Your task to perform on an android device: Open accessibility settings Image 0: 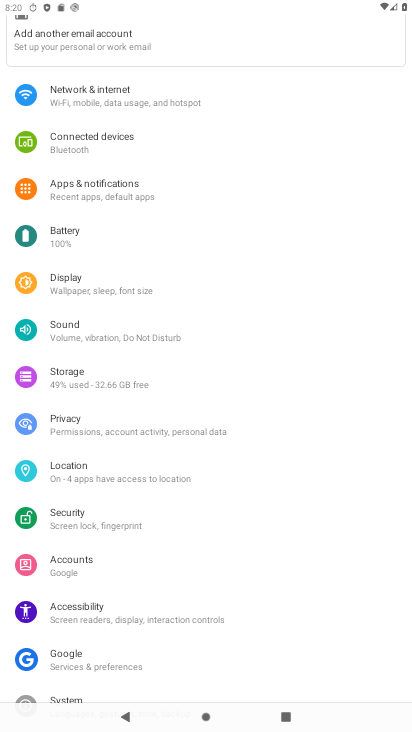
Step 0: drag from (58, 654) to (183, 223)
Your task to perform on an android device: Open accessibility settings Image 1: 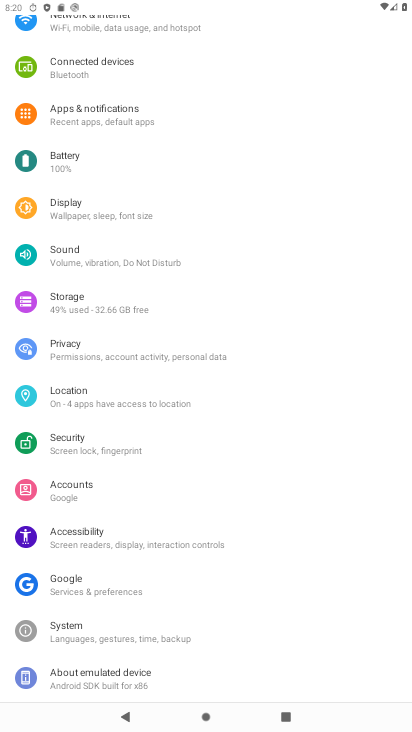
Step 1: click (103, 538)
Your task to perform on an android device: Open accessibility settings Image 2: 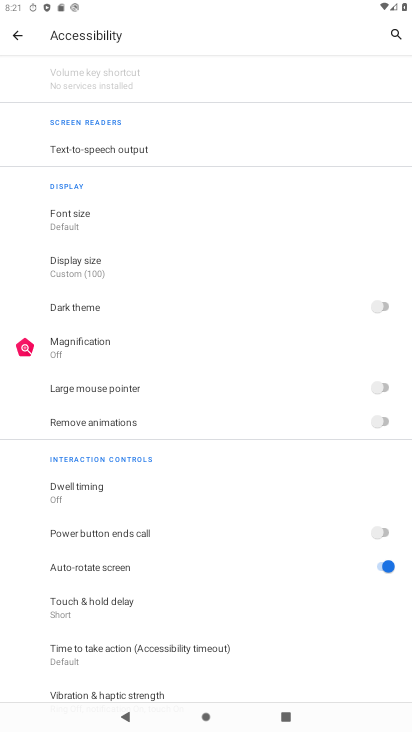
Step 2: task complete